Your task to perform on an android device: change the clock display to show seconds Image 0: 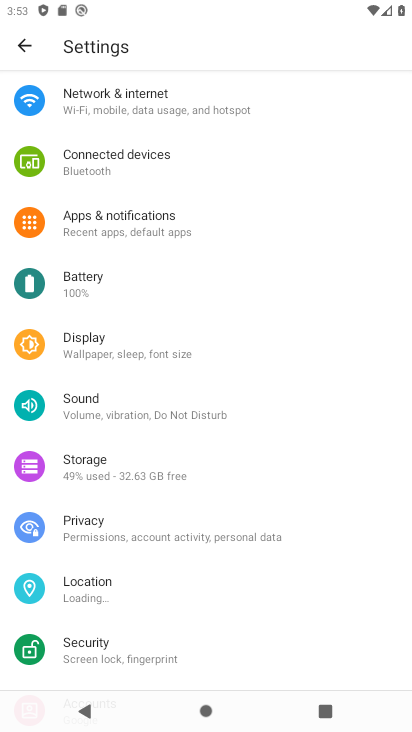
Step 0: press home button
Your task to perform on an android device: change the clock display to show seconds Image 1: 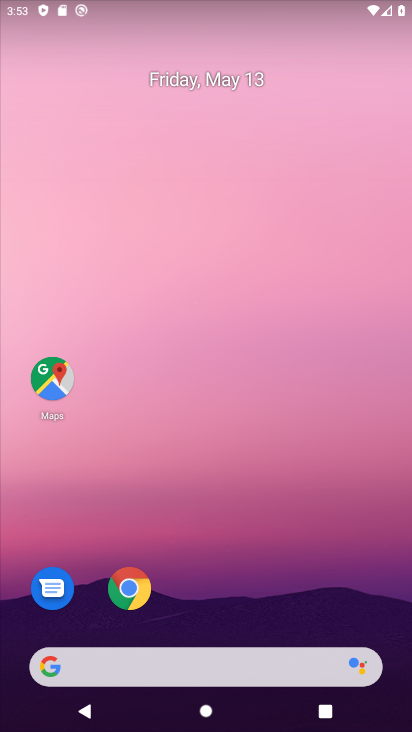
Step 1: drag from (240, 606) to (276, 222)
Your task to perform on an android device: change the clock display to show seconds Image 2: 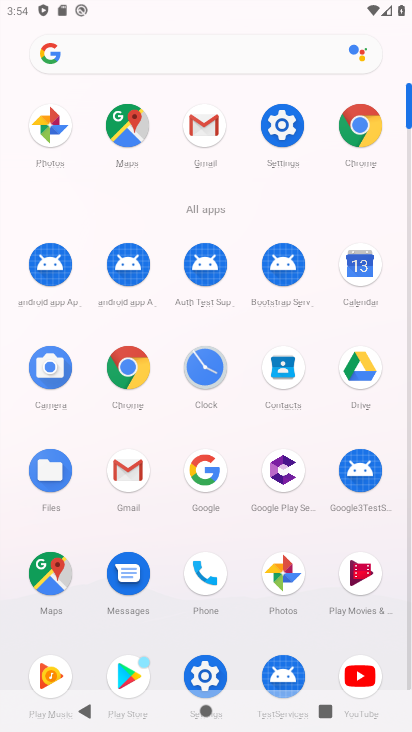
Step 2: click (210, 376)
Your task to perform on an android device: change the clock display to show seconds Image 3: 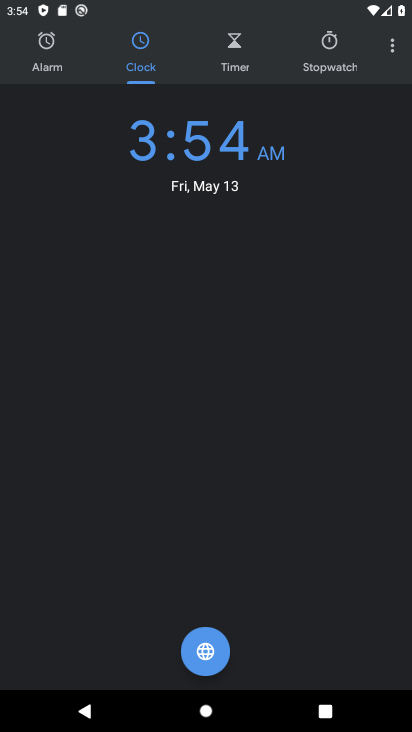
Step 3: click (399, 55)
Your task to perform on an android device: change the clock display to show seconds Image 4: 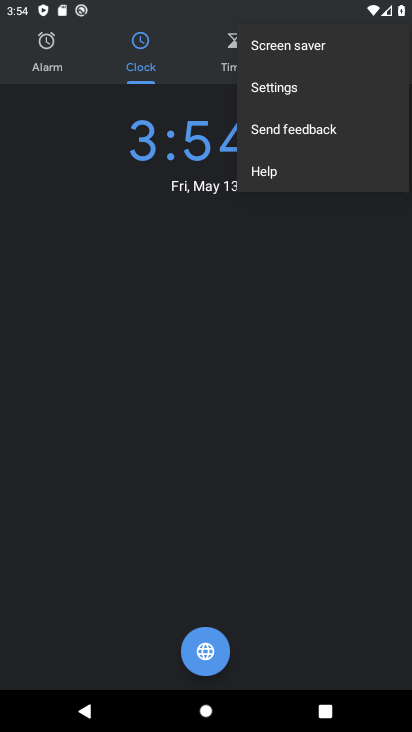
Step 4: click (301, 92)
Your task to perform on an android device: change the clock display to show seconds Image 5: 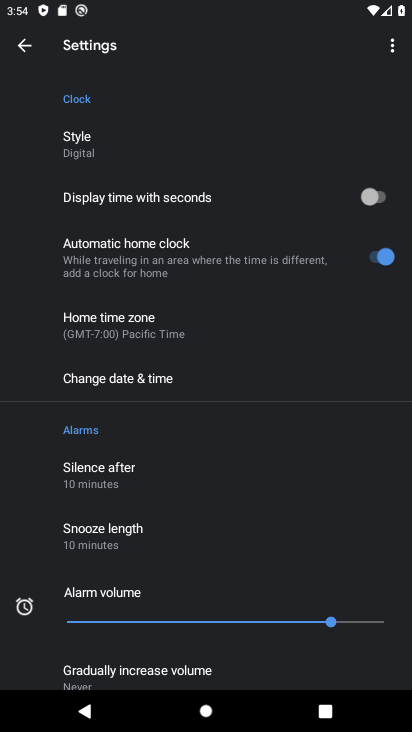
Step 5: click (143, 600)
Your task to perform on an android device: change the clock display to show seconds Image 6: 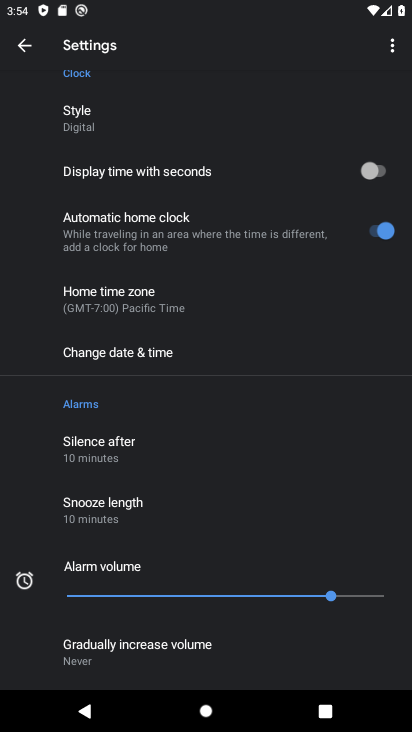
Step 6: click (366, 175)
Your task to perform on an android device: change the clock display to show seconds Image 7: 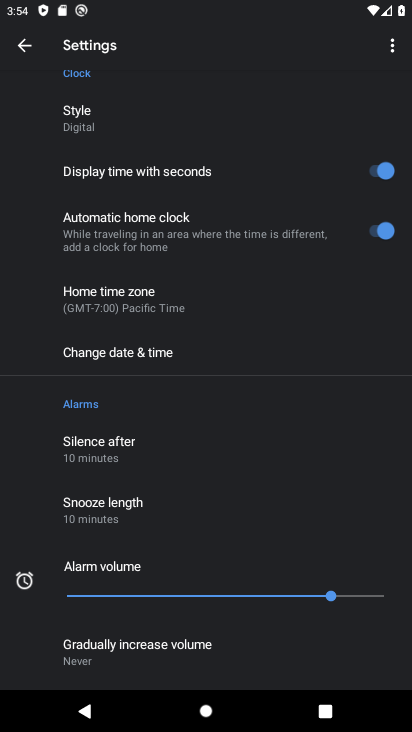
Step 7: task complete